Your task to perform on an android device: Open display settings Image 0: 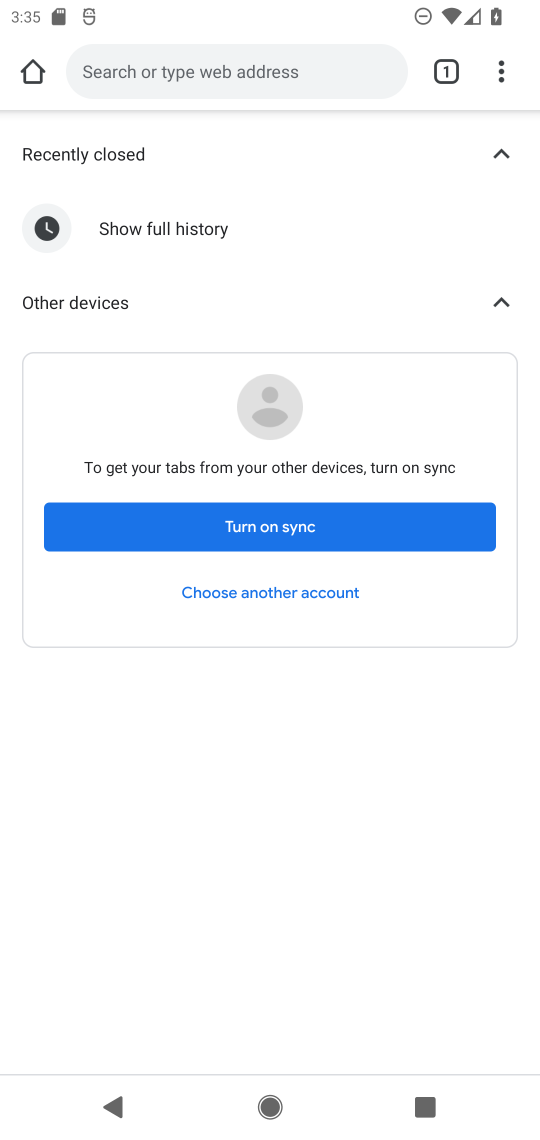
Step 0: press home button
Your task to perform on an android device: Open display settings Image 1: 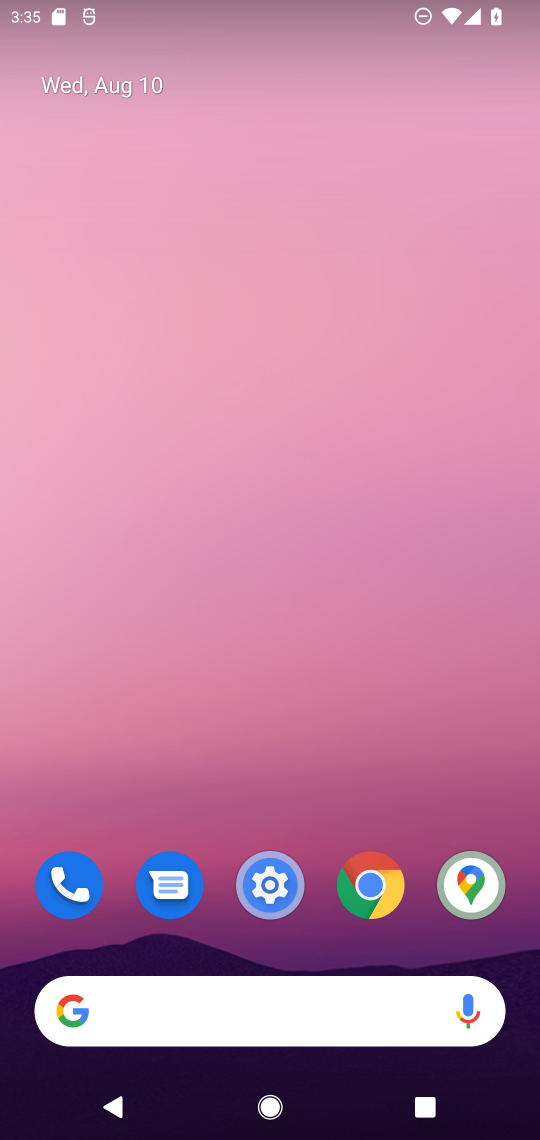
Step 1: click (273, 878)
Your task to perform on an android device: Open display settings Image 2: 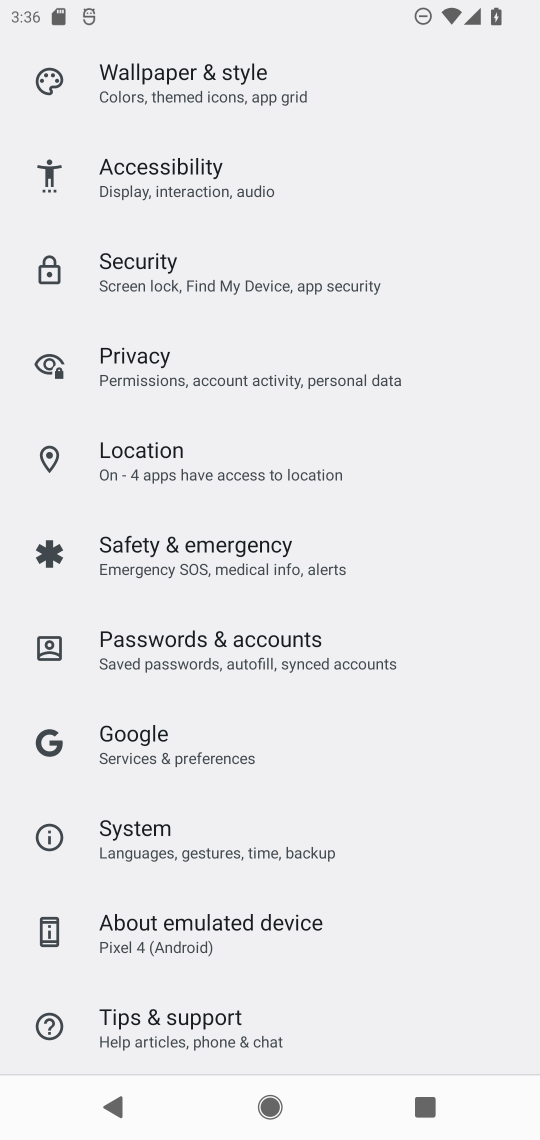
Step 2: drag from (386, 212) to (405, 805)
Your task to perform on an android device: Open display settings Image 3: 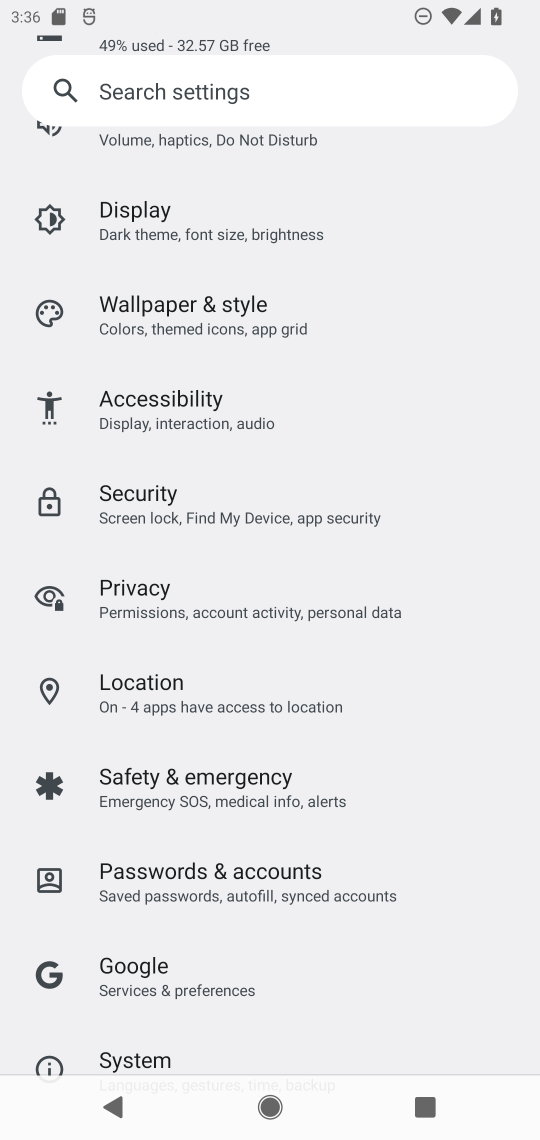
Step 3: click (128, 210)
Your task to perform on an android device: Open display settings Image 4: 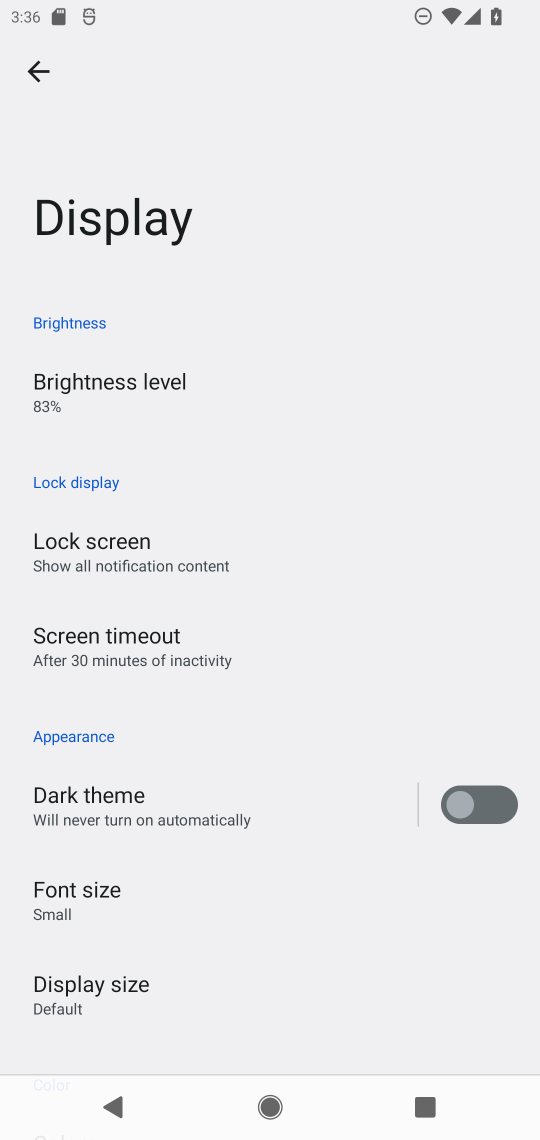
Step 4: task complete